Your task to perform on an android device: move an email to a new category in the gmail app Image 0: 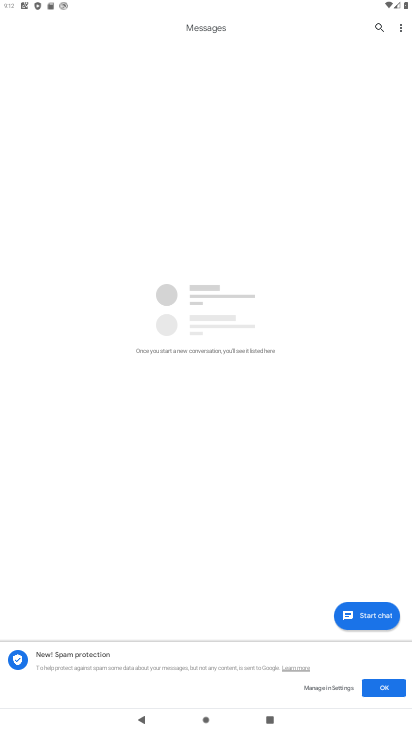
Step 0: press home button
Your task to perform on an android device: move an email to a new category in the gmail app Image 1: 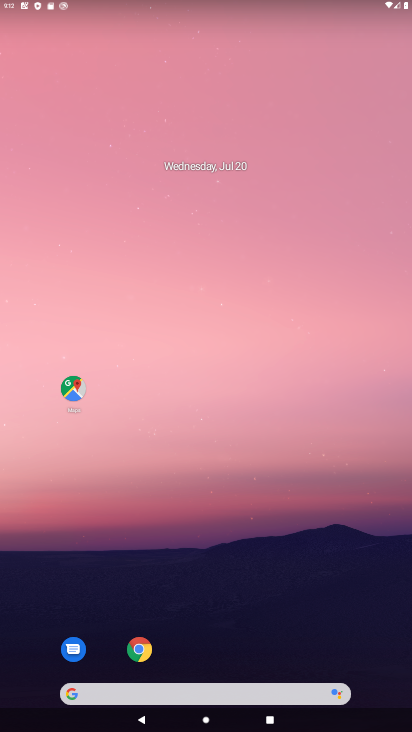
Step 1: drag from (237, 643) to (265, 115)
Your task to perform on an android device: move an email to a new category in the gmail app Image 2: 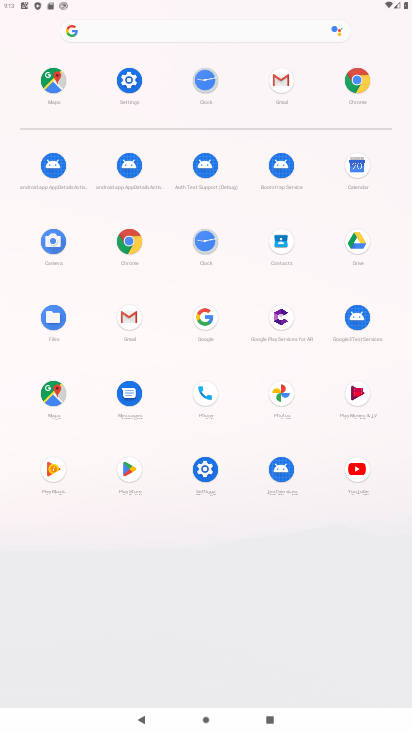
Step 2: click (273, 105)
Your task to perform on an android device: move an email to a new category in the gmail app Image 3: 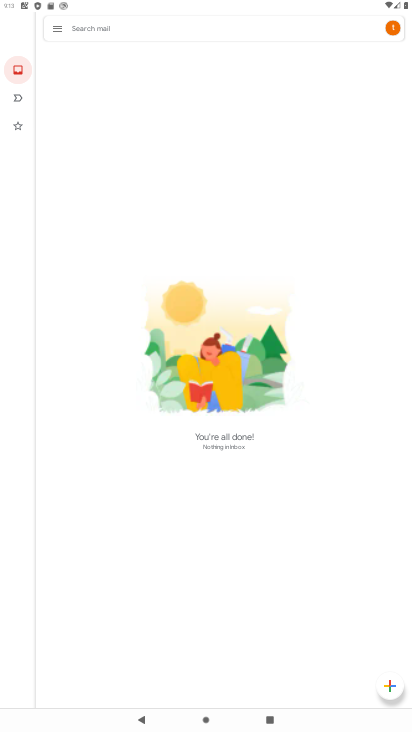
Step 3: task complete